Your task to perform on an android device: turn off data saver in the chrome app Image 0: 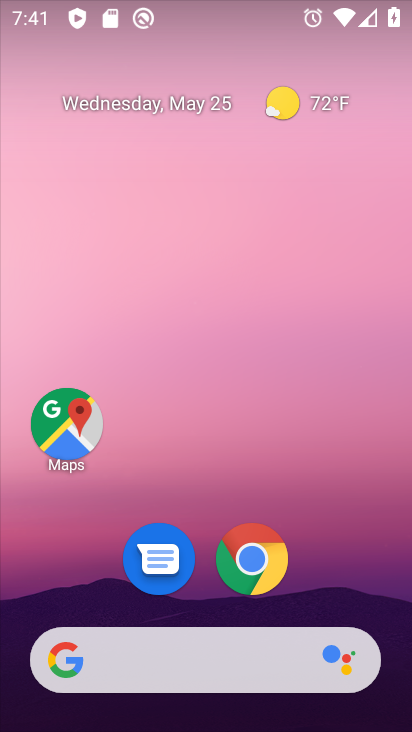
Step 0: drag from (163, 637) to (223, 240)
Your task to perform on an android device: turn off data saver in the chrome app Image 1: 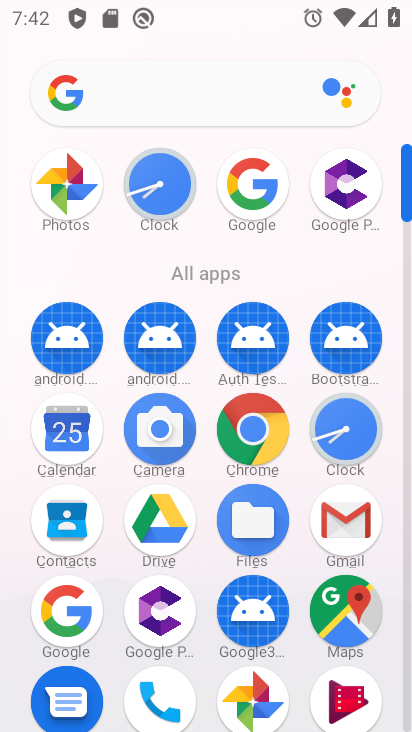
Step 1: click (251, 442)
Your task to perform on an android device: turn off data saver in the chrome app Image 2: 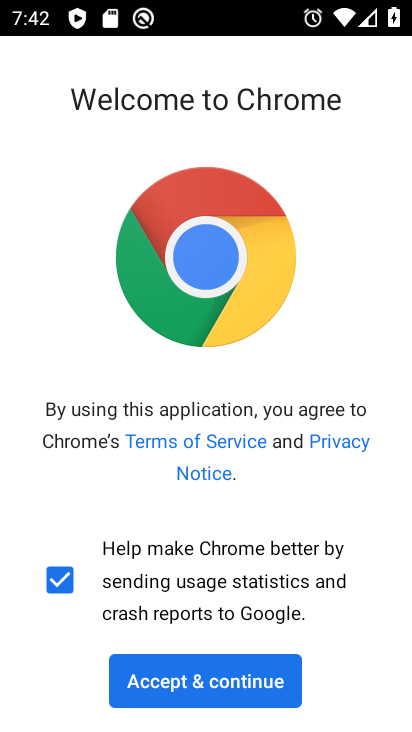
Step 2: click (223, 697)
Your task to perform on an android device: turn off data saver in the chrome app Image 3: 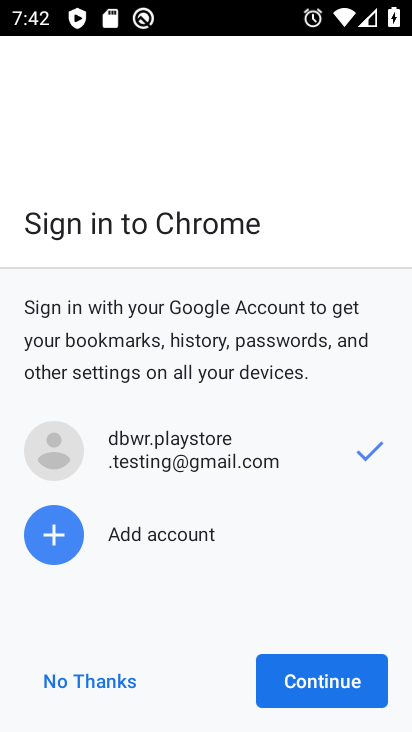
Step 3: click (350, 669)
Your task to perform on an android device: turn off data saver in the chrome app Image 4: 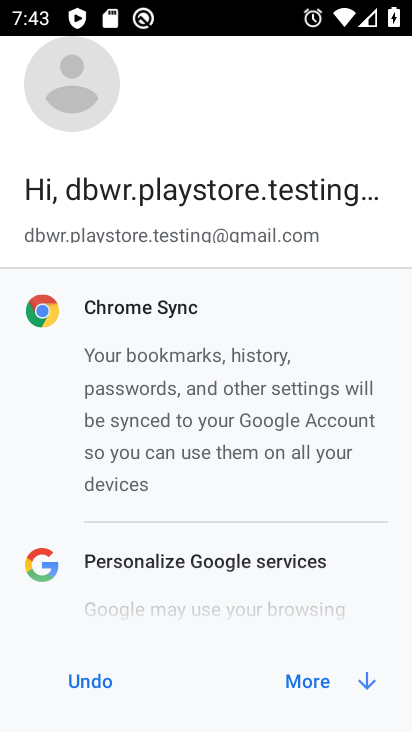
Step 4: click (327, 685)
Your task to perform on an android device: turn off data saver in the chrome app Image 5: 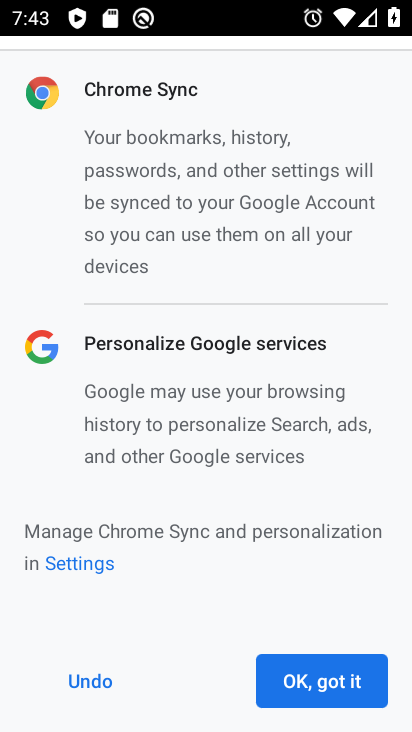
Step 5: click (329, 677)
Your task to perform on an android device: turn off data saver in the chrome app Image 6: 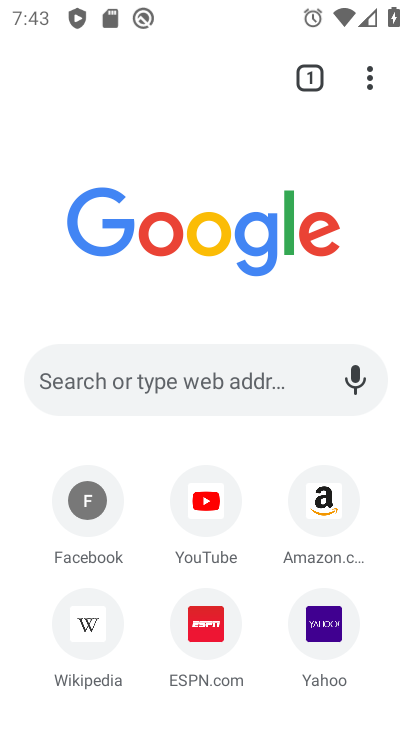
Step 6: click (376, 89)
Your task to perform on an android device: turn off data saver in the chrome app Image 7: 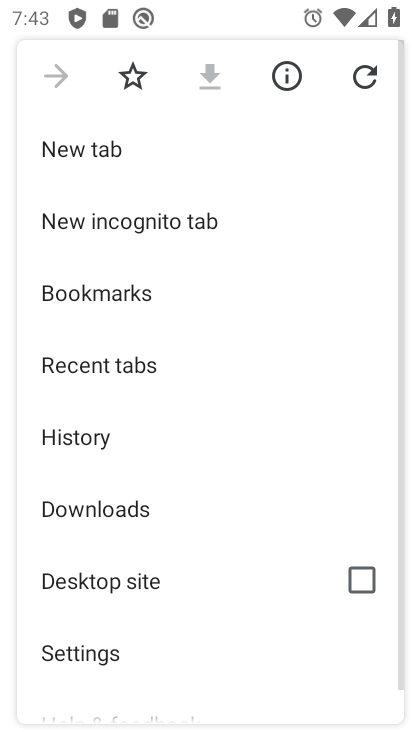
Step 7: drag from (217, 498) to (212, 141)
Your task to perform on an android device: turn off data saver in the chrome app Image 8: 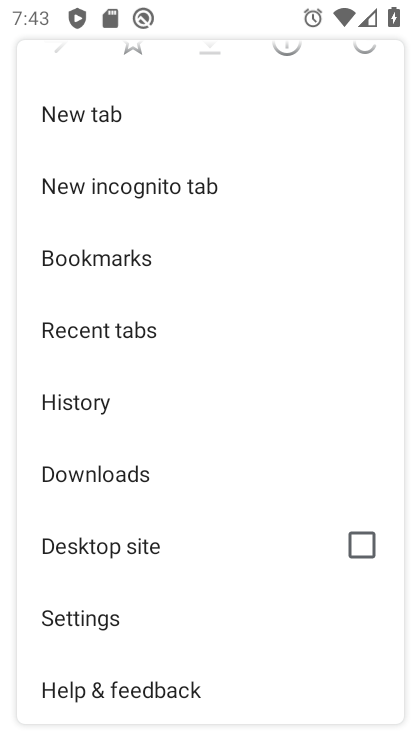
Step 8: click (115, 622)
Your task to perform on an android device: turn off data saver in the chrome app Image 9: 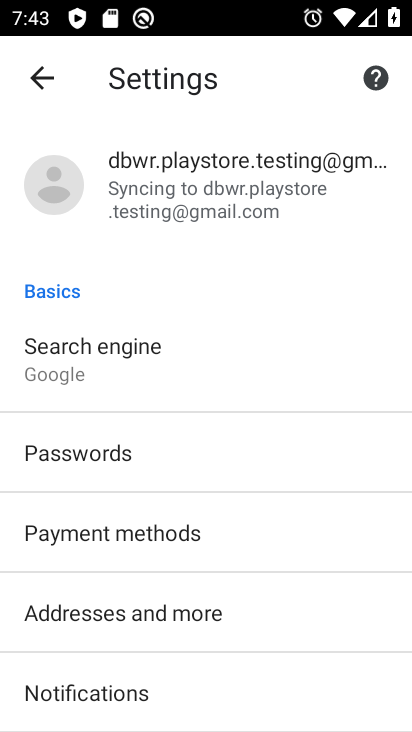
Step 9: drag from (151, 566) to (253, 36)
Your task to perform on an android device: turn off data saver in the chrome app Image 10: 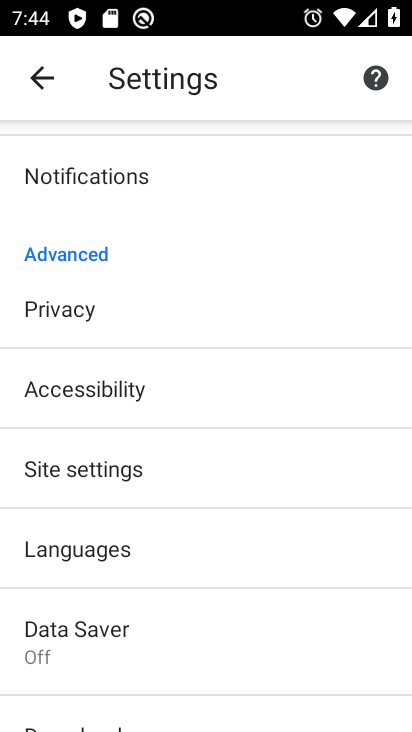
Step 10: click (158, 632)
Your task to perform on an android device: turn off data saver in the chrome app Image 11: 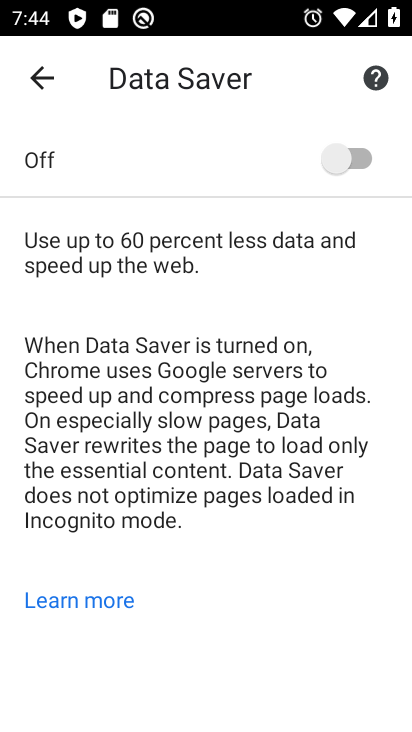
Step 11: task complete